Your task to perform on an android device: Go to notification settings Image 0: 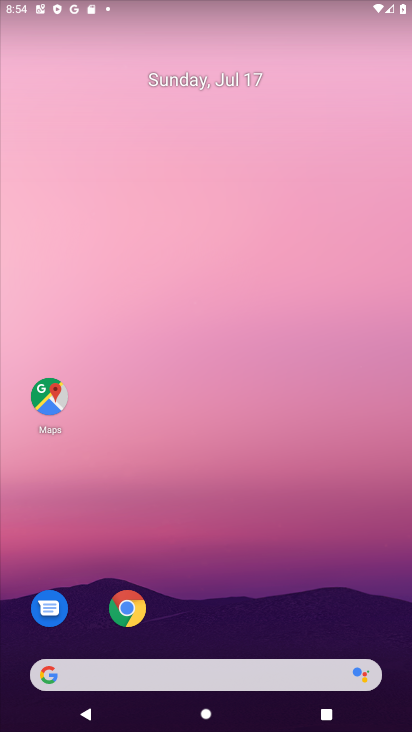
Step 0: press home button
Your task to perform on an android device: Go to notification settings Image 1: 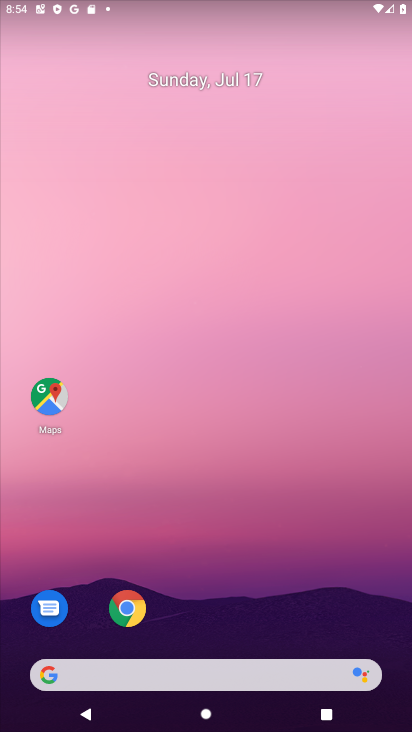
Step 1: drag from (227, 673) to (238, 262)
Your task to perform on an android device: Go to notification settings Image 2: 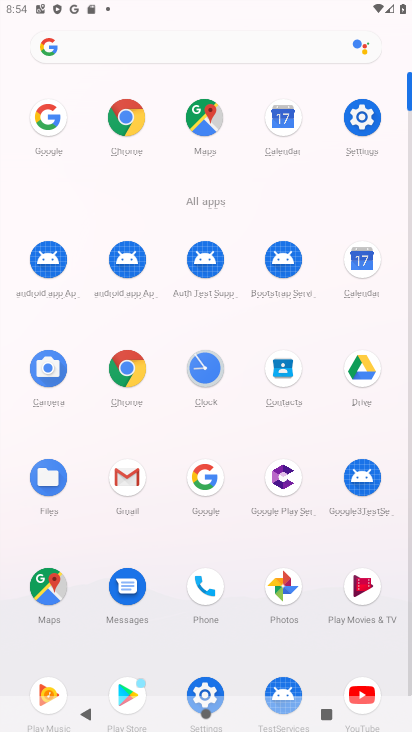
Step 2: click (356, 122)
Your task to perform on an android device: Go to notification settings Image 3: 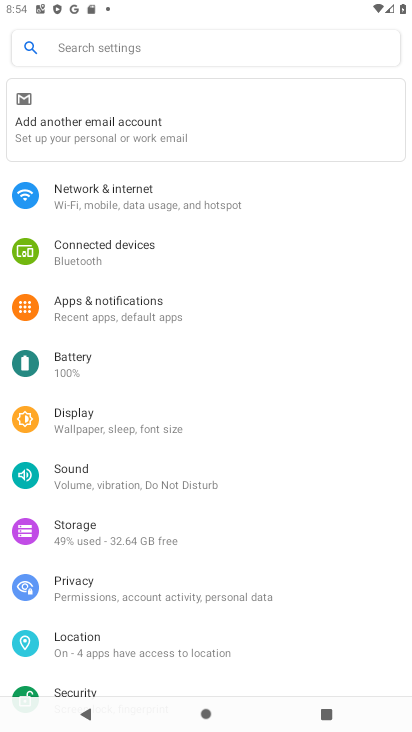
Step 3: click (114, 318)
Your task to perform on an android device: Go to notification settings Image 4: 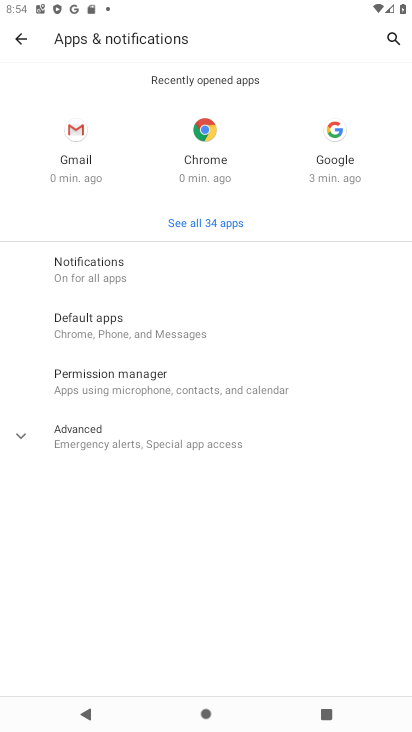
Step 4: click (86, 254)
Your task to perform on an android device: Go to notification settings Image 5: 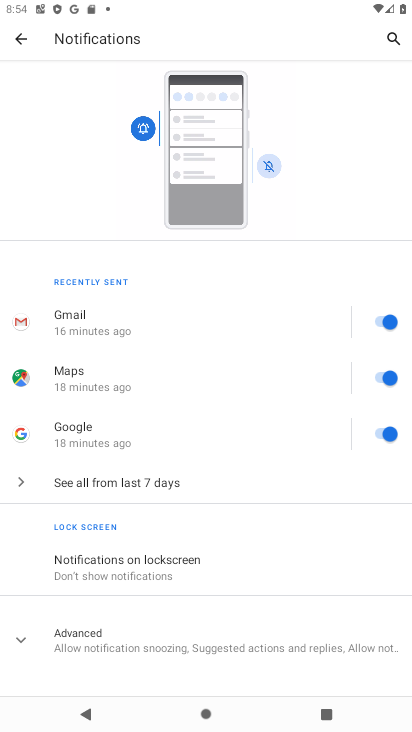
Step 5: task complete